Your task to perform on an android device: Open Amazon Image 0: 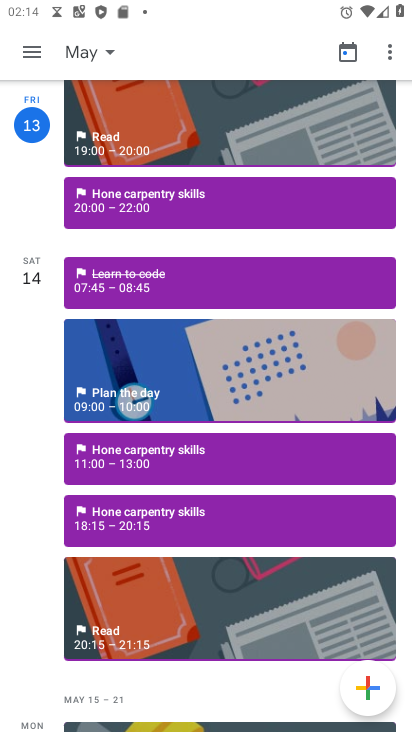
Step 0: press home button
Your task to perform on an android device: Open Amazon Image 1: 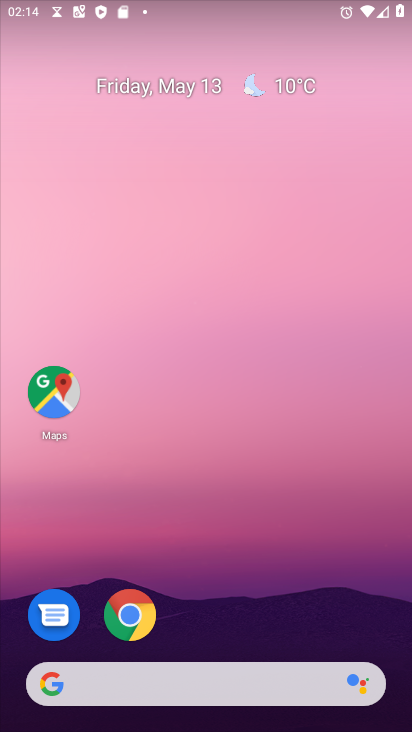
Step 1: click (156, 625)
Your task to perform on an android device: Open Amazon Image 2: 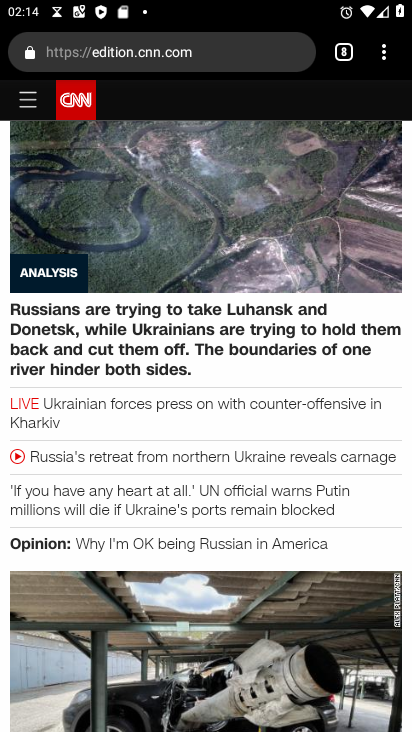
Step 2: click (346, 48)
Your task to perform on an android device: Open Amazon Image 3: 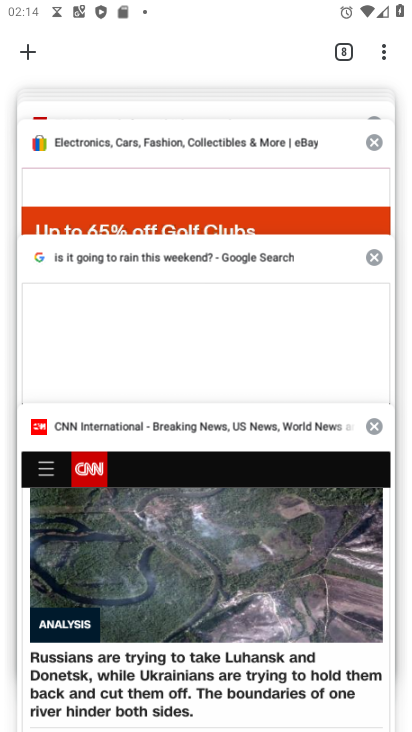
Step 3: drag from (153, 155) to (98, 453)
Your task to perform on an android device: Open Amazon Image 4: 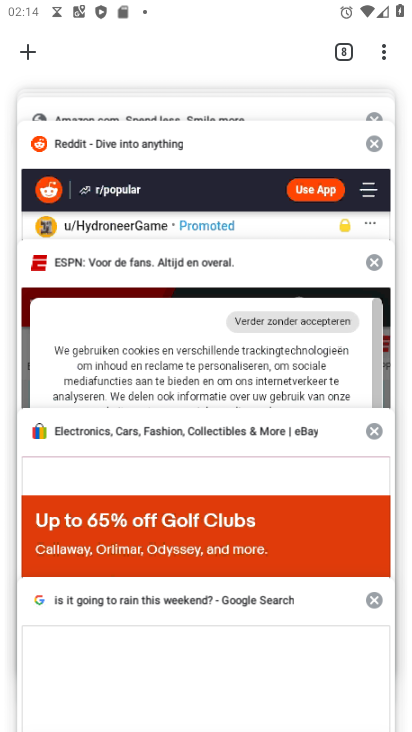
Step 4: drag from (86, 165) to (65, 399)
Your task to perform on an android device: Open Amazon Image 5: 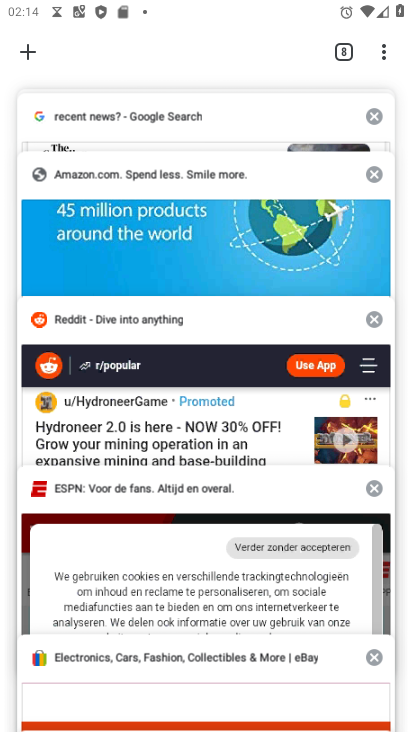
Step 5: click (120, 236)
Your task to perform on an android device: Open Amazon Image 6: 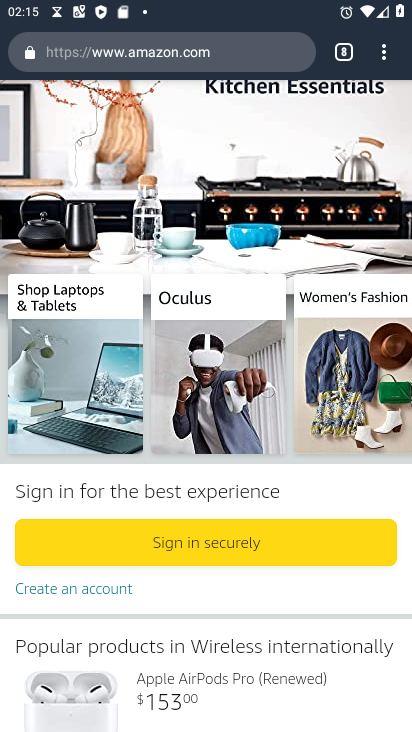
Step 6: task complete